Your task to perform on an android device: change alarm snooze length Image 0: 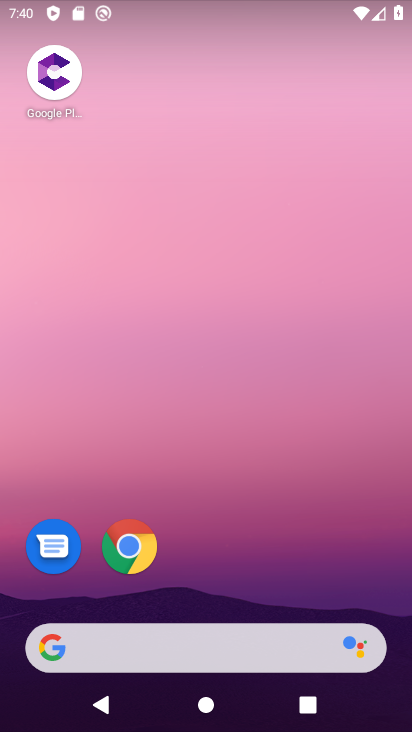
Step 0: drag from (132, 642) to (334, 112)
Your task to perform on an android device: change alarm snooze length Image 1: 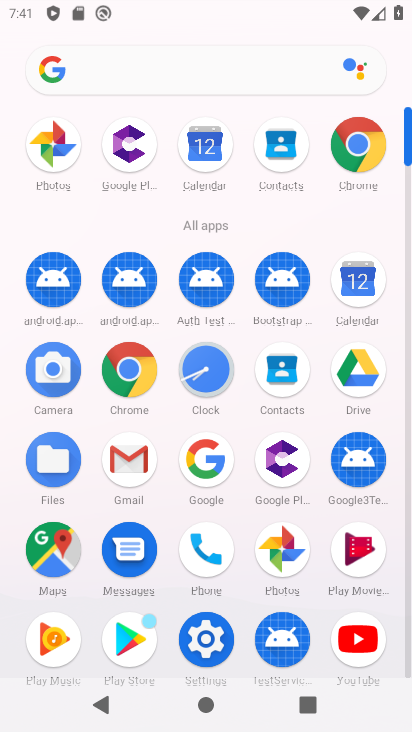
Step 1: click (199, 382)
Your task to perform on an android device: change alarm snooze length Image 2: 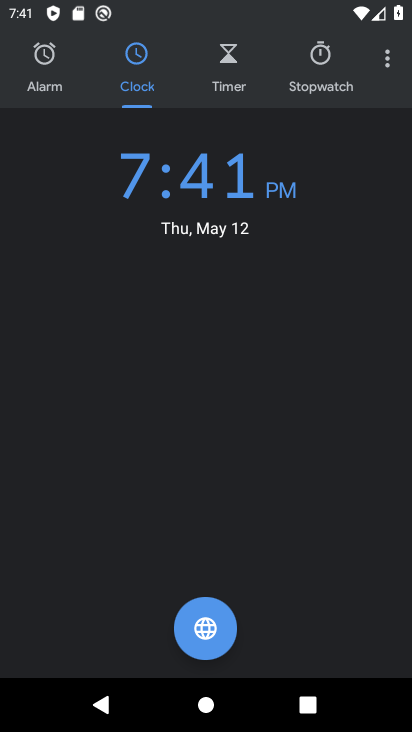
Step 2: click (387, 57)
Your task to perform on an android device: change alarm snooze length Image 3: 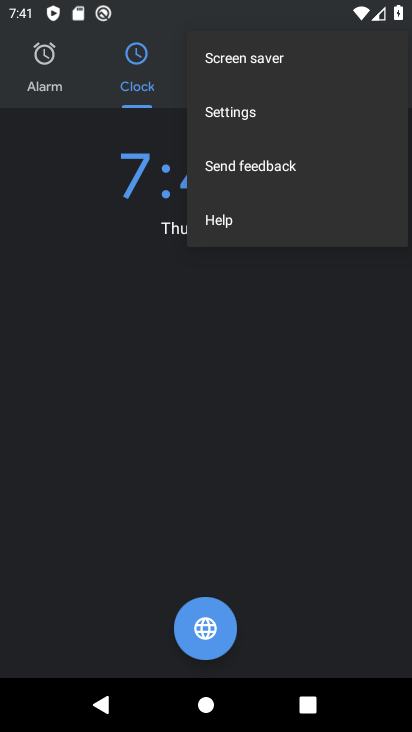
Step 3: click (224, 110)
Your task to perform on an android device: change alarm snooze length Image 4: 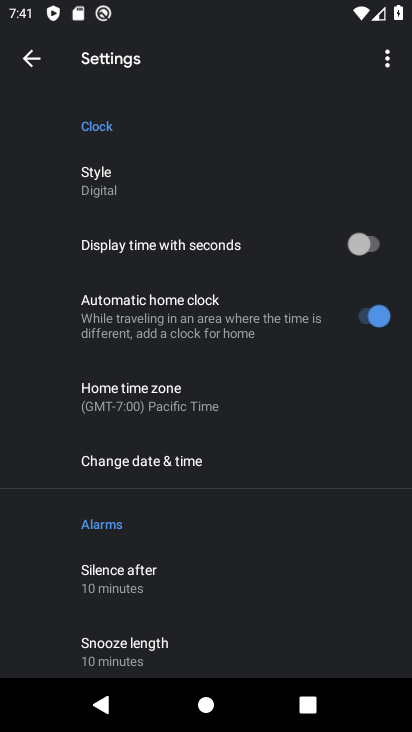
Step 4: drag from (191, 561) to (325, 265)
Your task to perform on an android device: change alarm snooze length Image 5: 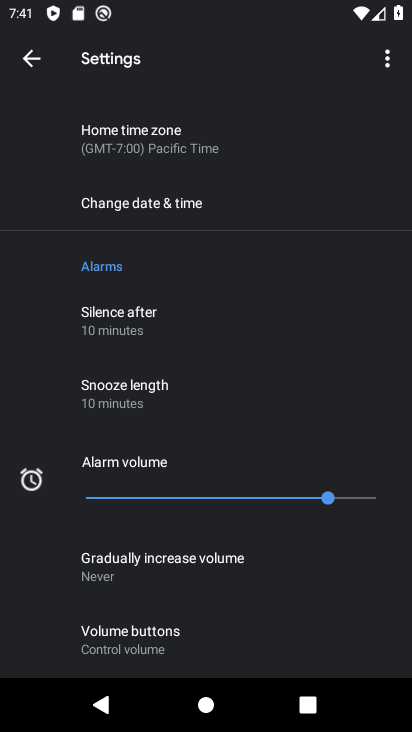
Step 5: click (124, 396)
Your task to perform on an android device: change alarm snooze length Image 6: 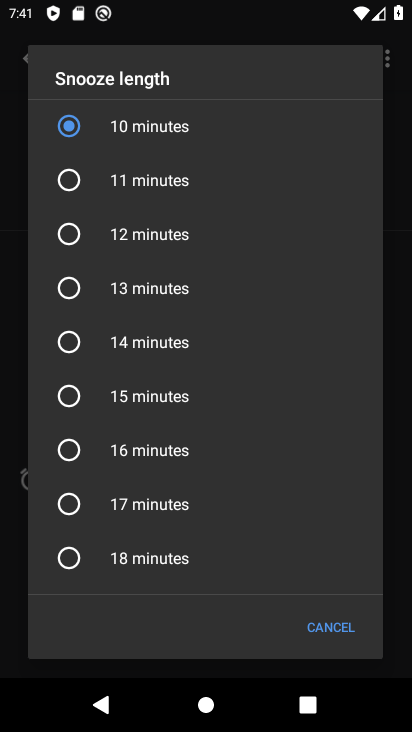
Step 6: click (65, 393)
Your task to perform on an android device: change alarm snooze length Image 7: 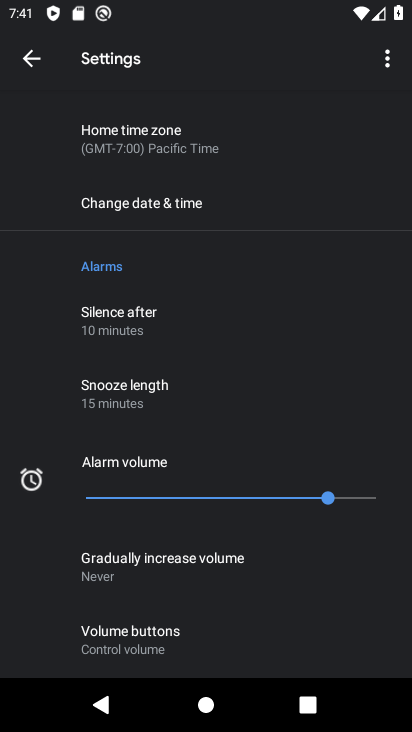
Step 7: task complete